Your task to perform on an android device: open app "NewsBreak: Local News & Alerts" (install if not already installed) and enter user name: "switch@outlook.com" and password: "fabrics" Image 0: 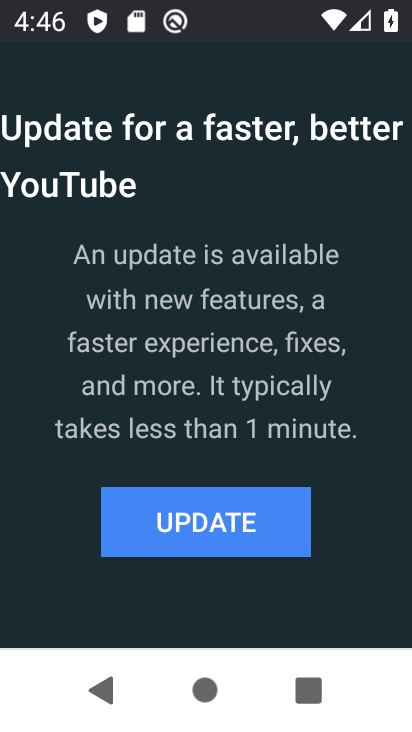
Step 0: press home button
Your task to perform on an android device: open app "NewsBreak: Local News & Alerts" (install if not already installed) and enter user name: "switch@outlook.com" and password: "fabrics" Image 1: 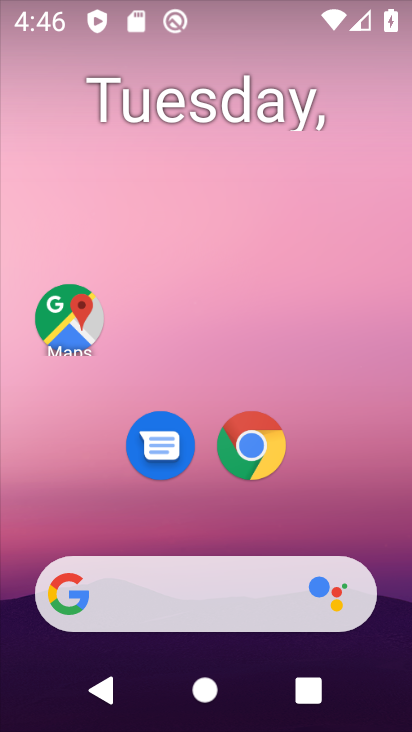
Step 1: drag from (177, 584) to (222, 107)
Your task to perform on an android device: open app "NewsBreak: Local News & Alerts" (install if not already installed) and enter user name: "switch@outlook.com" and password: "fabrics" Image 2: 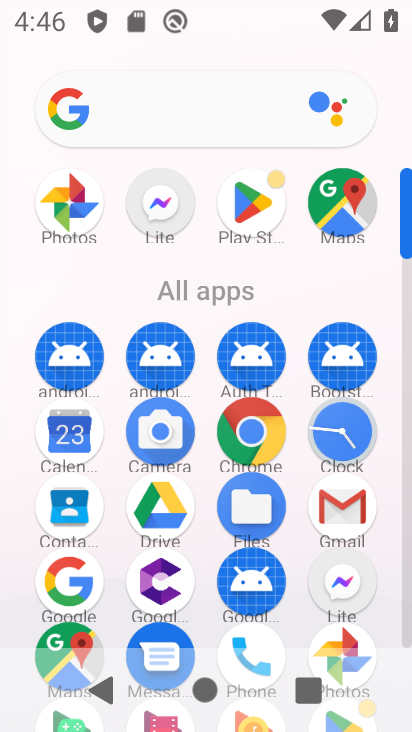
Step 2: click (257, 203)
Your task to perform on an android device: open app "NewsBreak: Local News & Alerts" (install if not already installed) and enter user name: "switch@outlook.com" and password: "fabrics" Image 3: 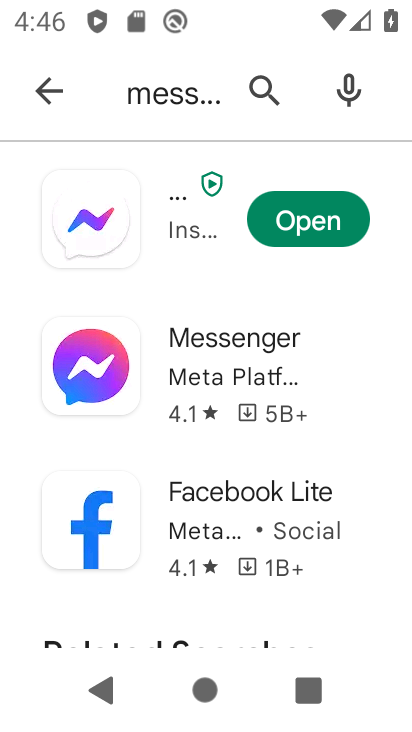
Step 3: press back button
Your task to perform on an android device: open app "NewsBreak: Local News & Alerts" (install if not already installed) and enter user name: "switch@outlook.com" and password: "fabrics" Image 4: 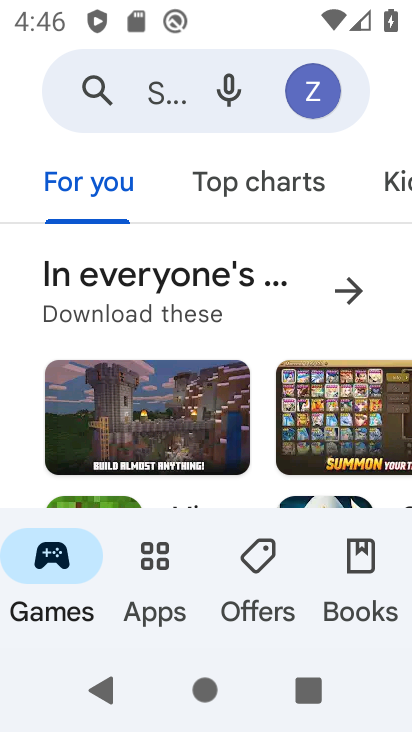
Step 4: click (186, 89)
Your task to perform on an android device: open app "NewsBreak: Local News & Alerts" (install if not already installed) and enter user name: "switch@outlook.com" and password: "fabrics" Image 5: 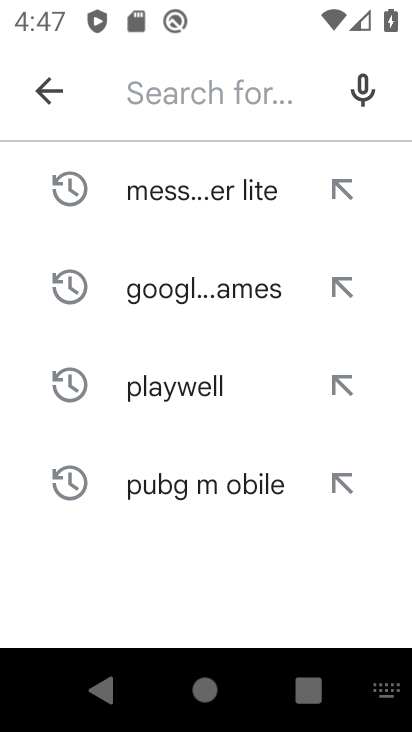
Step 5: type "NewsBreak: Local News & Alerts"
Your task to perform on an android device: open app "NewsBreak: Local News & Alerts" (install if not already installed) and enter user name: "switch@outlook.com" and password: "fabrics" Image 6: 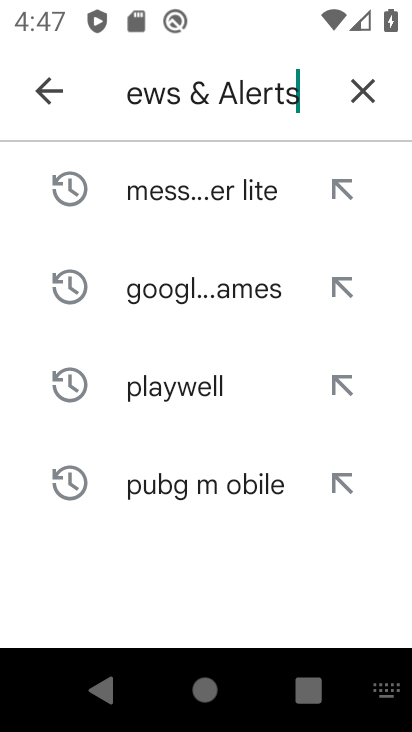
Step 6: type ""
Your task to perform on an android device: open app "NewsBreak: Local News & Alerts" (install if not already installed) and enter user name: "switch@outlook.com" and password: "fabrics" Image 7: 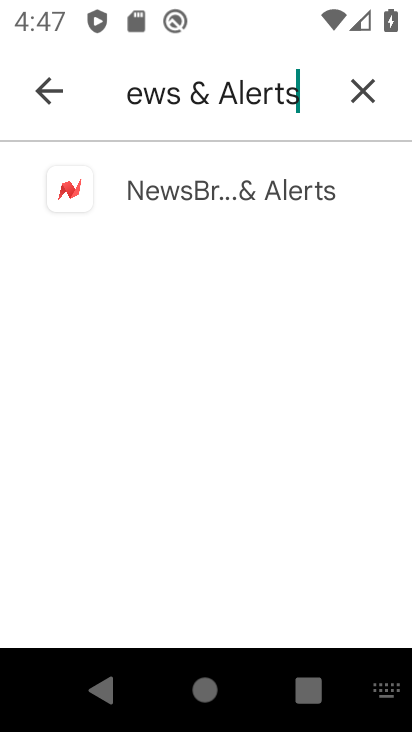
Step 7: click (192, 200)
Your task to perform on an android device: open app "NewsBreak: Local News & Alerts" (install if not already installed) and enter user name: "switch@outlook.com" and password: "fabrics" Image 8: 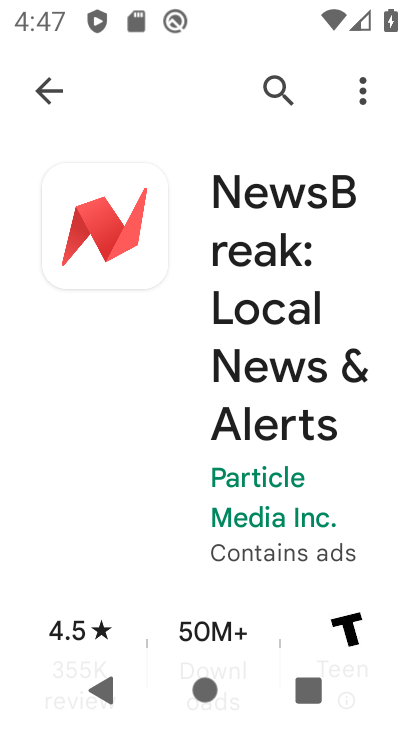
Step 8: click (272, 227)
Your task to perform on an android device: open app "NewsBreak: Local News & Alerts" (install if not already installed) and enter user name: "switch@outlook.com" and password: "fabrics" Image 9: 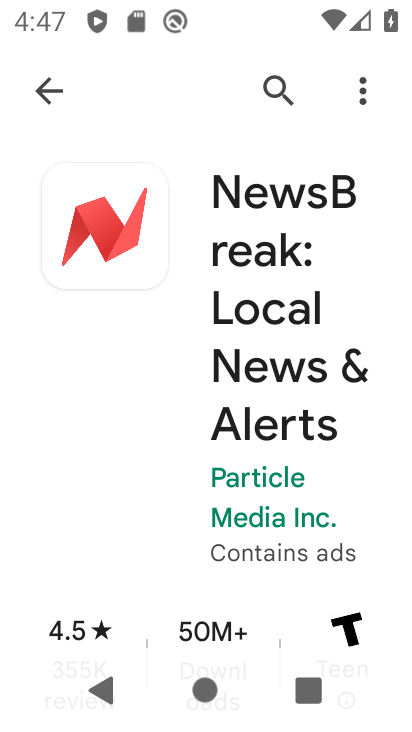
Step 9: drag from (106, 459) to (173, 178)
Your task to perform on an android device: open app "NewsBreak: Local News & Alerts" (install if not already installed) and enter user name: "switch@outlook.com" and password: "fabrics" Image 10: 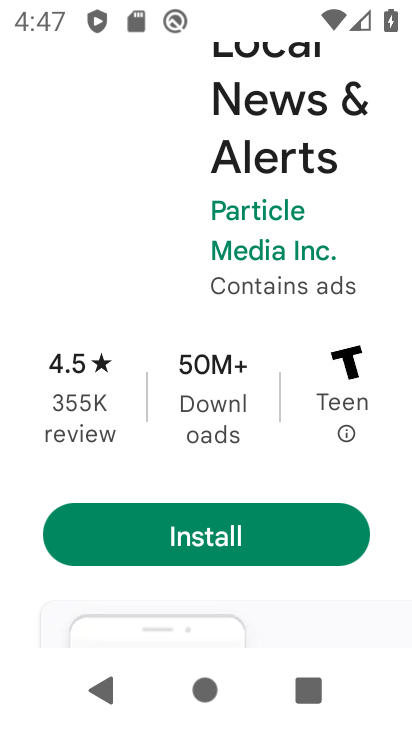
Step 10: click (206, 535)
Your task to perform on an android device: open app "NewsBreak: Local News & Alerts" (install if not already installed) and enter user name: "switch@outlook.com" and password: "fabrics" Image 11: 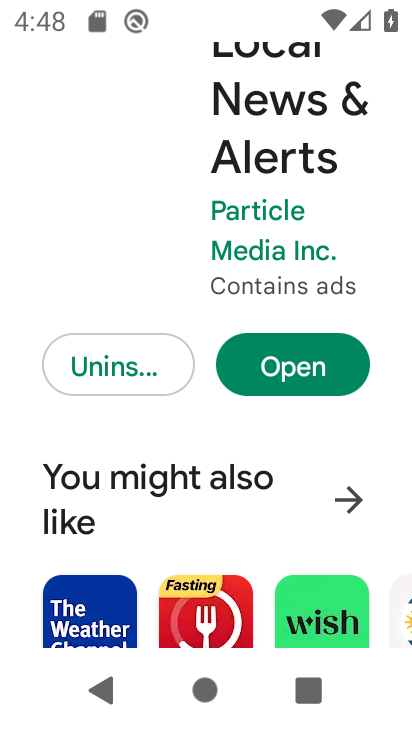
Step 11: click (287, 366)
Your task to perform on an android device: open app "NewsBreak: Local News & Alerts" (install if not already installed) and enter user name: "switch@outlook.com" and password: "fabrics" Image 12: 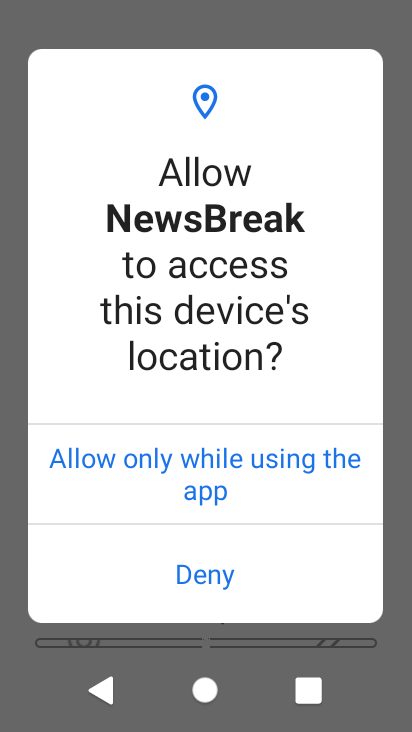
Step 12: click (235, 452)
Your task to perform on an android device: open app "NewsBreak: Local News & Alerts" (install if not already installed) and enter user name: "switch@outlook.com" and password: "fabrics" Image 13: 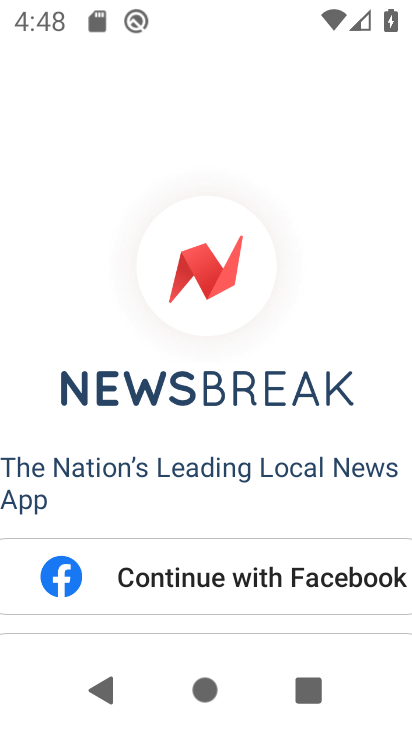
Step 13: click (255, 572)
Your task to perform on an android device: open app "NewsBreak: Local News & Alerts" (install if not already installed) and enter user name: "switch@outlook.com" and password: "fabrics" Image 14: 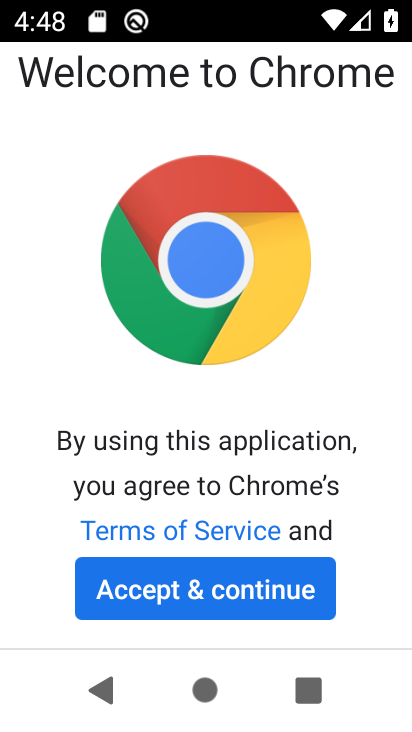
Step 14: click (241, 585)
Your task to perform on an android device: open app "NewsBreak: Local News & Alerts" (install if not already installed) and enter user name: "switch@outlook.com" and password: "fabrics" Image 15: 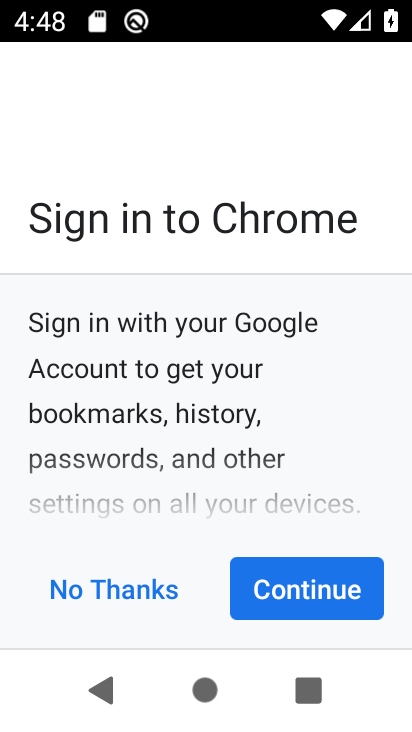
Step 15: click (112, 580)
Your task to perform on an android device: open app "NewsBreak: Local News & Alerts" (install if not already installed) and enter user name: "switch@outlook.com" and password: "fabrics" Image 16: 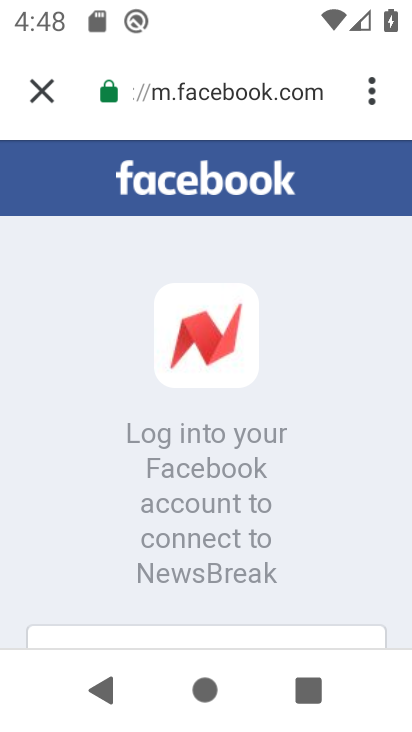
Step 16: drag from (243, 543) to (282, 303)
Your task to perform on an android device: open app "NewsBreak: Local News & Alerts" (install if not already installed) and enter user name: "switch@outlook.com" and password: "fabrics" Image 17: 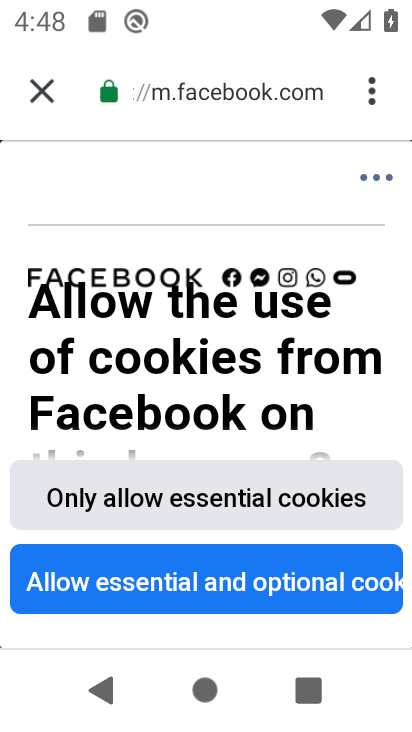
Step 17: click (241, 585)
Your task to perform on an android device: open app "NewsBreak: Local News & Alerts" (install if not already installed) and enter user name: "switch@outlook.com" and password: "fabrics" Image 18: 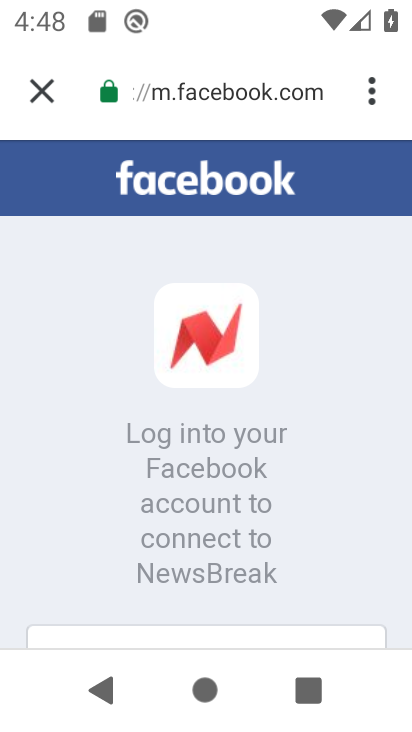
Step 18: drag from (238, 579) to (229, 303)
Your task to perform on an android device: open app "NewsBreak: Local News & Alerts" (install if not already installed) and enter user name: "switch@outlook.com" and password: "fabrics" Image 19: 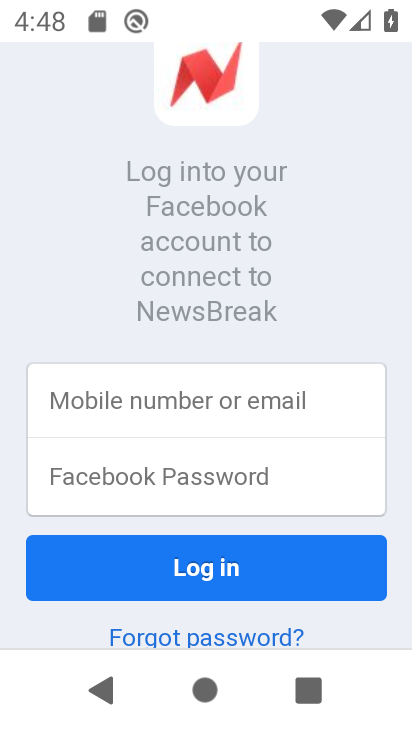
Step 19: click (171, 412)
Your task to perform on an android device: open app "NewsBreak: Local News & Alerts" (install if not already installed) and enter user name: "switch@outlook.com" and password: "fabrics" Image 20: 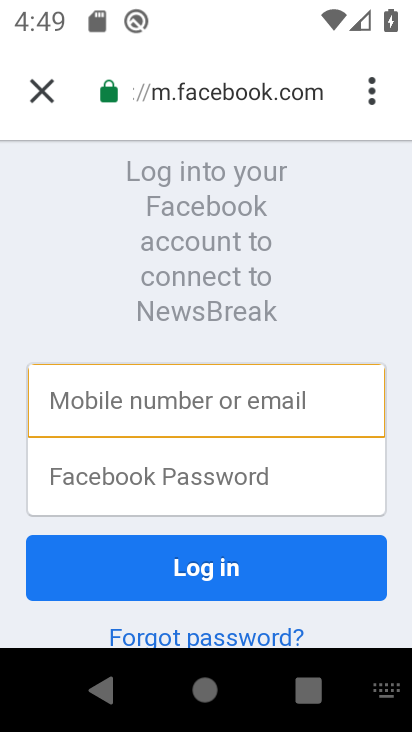
Step 20: click (217, 421)
Your task to perform on an android device: open app "NewsBreak: Local News & Alerts" (install if not already installed) and enter user name: "switch@outlook.com" and password: "fabrics" Image 21: 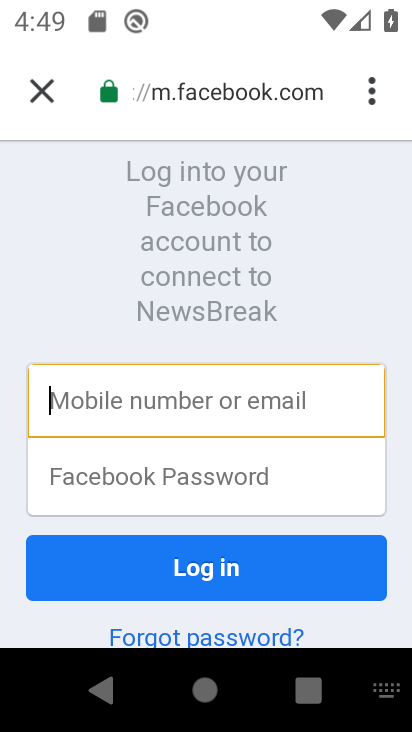
Step 21: type "switch@outlook.com"
Your task to perform on an android device: open app "NewsBreak: Local News & Alerts" (install if not already installed) and enter user name: "switch@outlook.com" and password: "fabrics" Image 22: 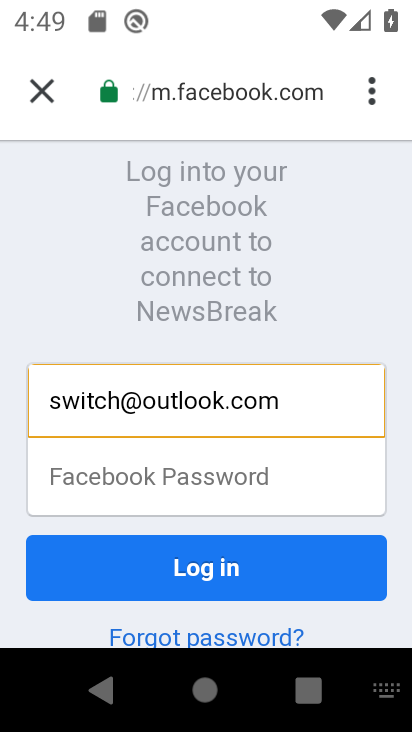
Step 22: click (178, 457)
Your task to perform on an android device: open app "NewsBreak: Local News & Alerts" (install if not already installed) and enter user name: "switch@outlook.com" and password: "fabrics" Image 23: 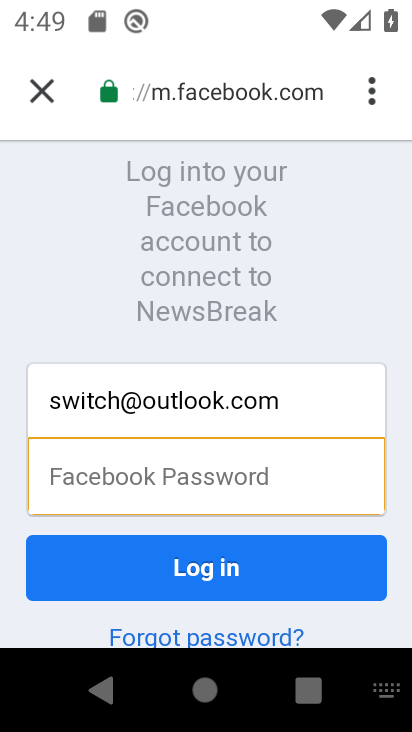
Step 23: type "fabrics"
Your task to perform on an android device: open app "NewsBreak: Local News & Alerts" (install if not already installed) and enter user name: "switch@outlook.com" and password: "fabrics" Image 24: 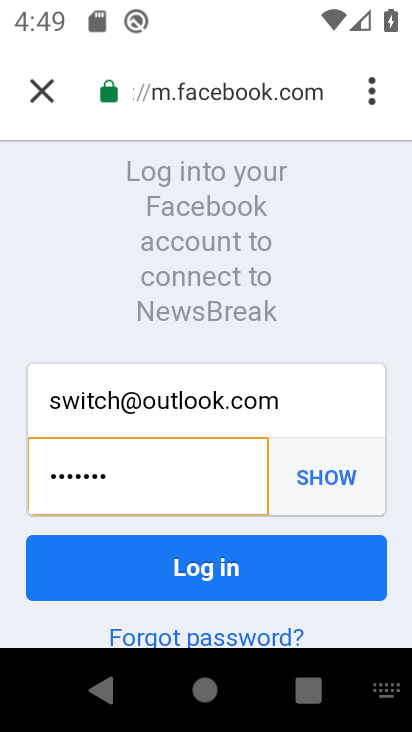
Step 24: task complete